Your task to perform on an android device: turn pop-ups on in chrome Image 0: 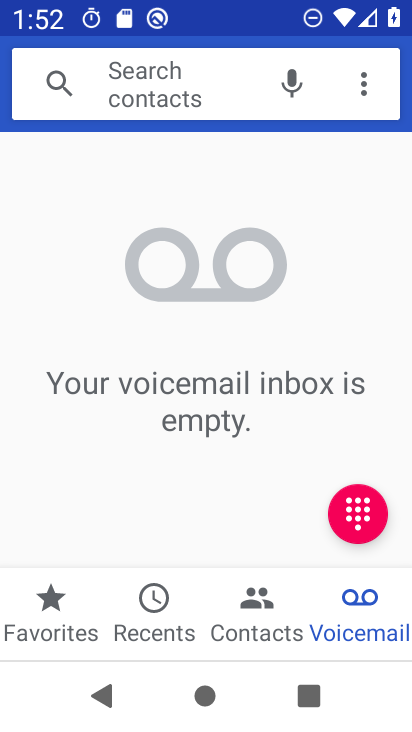
Step 0: press home button
Your task to perform on an android device: turn pop-ups on in chrome Image 1: 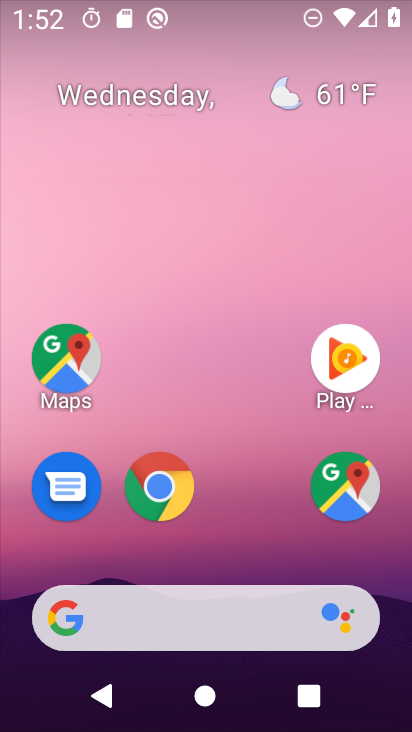
Step 1: drag from (246, 538) to (291, 121)
Your task to perform on an android device: turn pop-ups on in chrome Image 2: 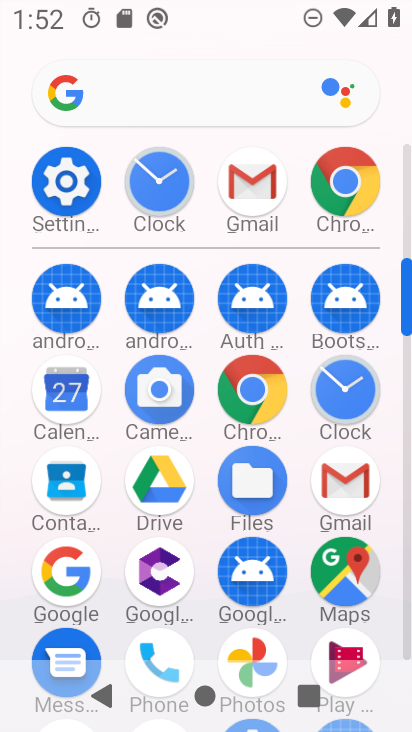
Step 2: click (258, 390)
Your task to perform on an android device: turn pop-ups on in chrome Image 3: 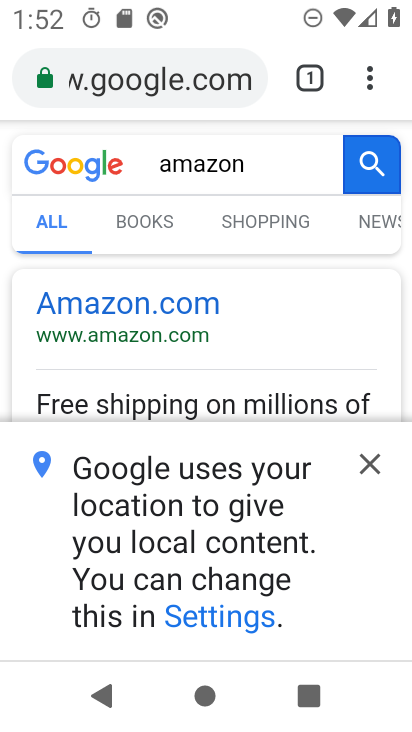
Step 3: click (368, 91)
Your task to perform on an android device: turn pop-ups on in chrome Image 4: 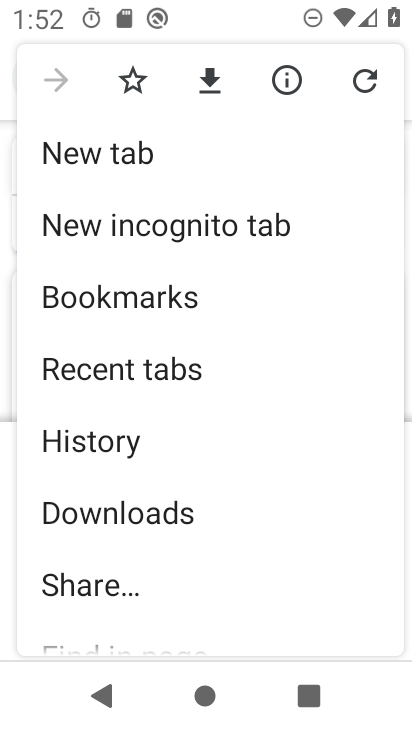
Step 4: drag from (326, 446) to (316, 363)
Your task to perform on an android device: turn pop-ups on in chrome Image 5: 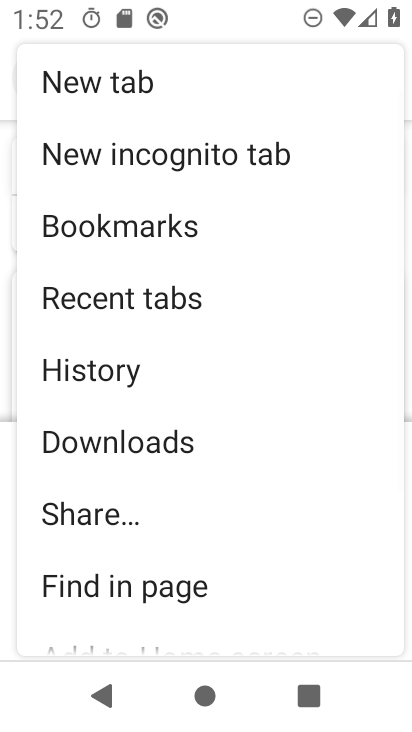
Step 5: drag from (290, 497) to (290, 408)
Your task to perform on an android device: turn pop-ups on in chrome Image 6: 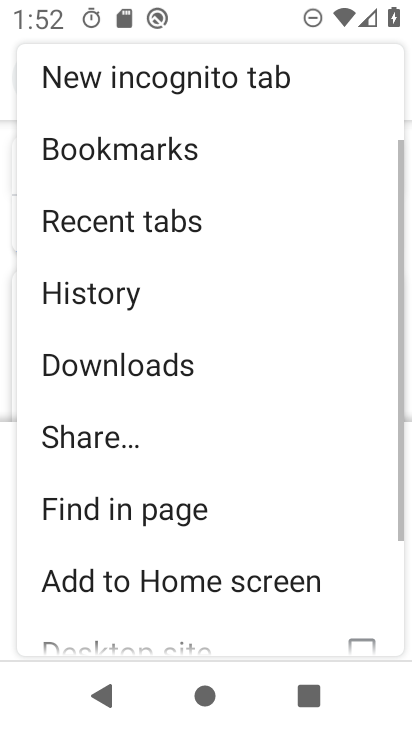
Step 6: drag from (297, 506) to (297, 402)
Your task to perform on an android device: turn pop-ups on in chrome Image 7: 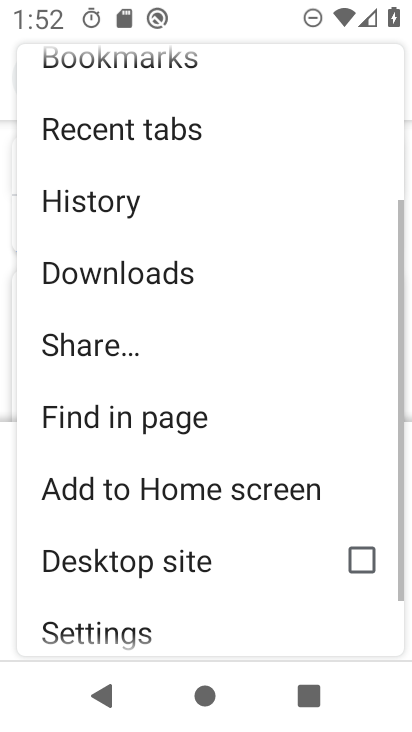
Step 7: drag from (284, 546) to (284, 452)
Your task to perform on an android device: turn pop-ups on in chrome Image 8: 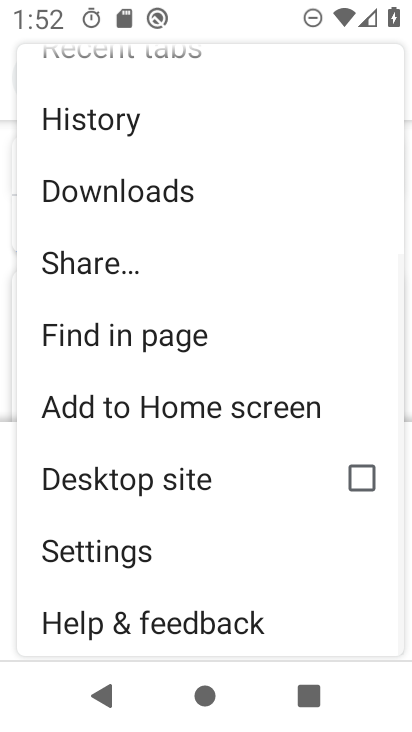
Step 8: drag from (280, 566) to (280, 419)
Your task to perform on an android device: turn pop-ups on in chrome Image 9: 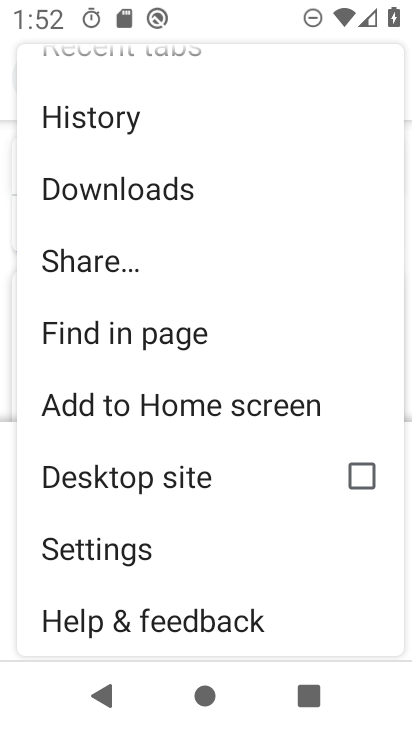
Step 9: click (232, 548)
Your task to perform on an android device: turn pop-ups on in chrome Image 10: 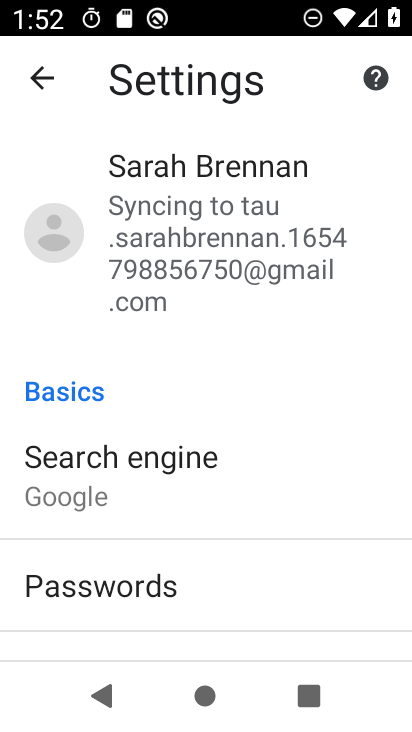
Step 10: drag from (329, 556) to (329, 458)
Your task to perform on an android device: turn pop-ups on in chrome Image 11: 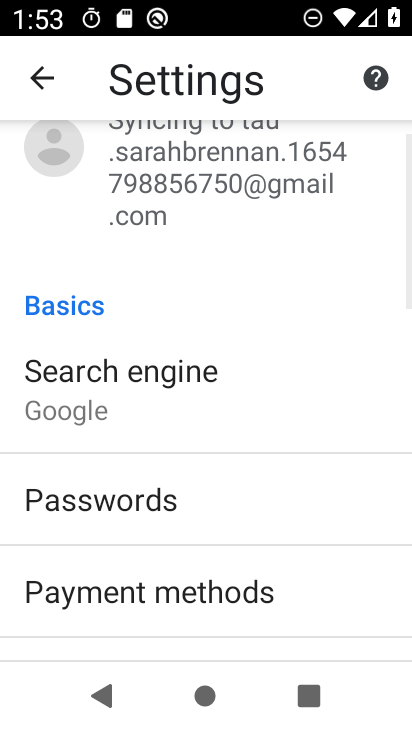
Step 11: drag from (318, 570) to (325, 477)
Your task to perform on an android device: turn pop-ups on in chrome Image 12: 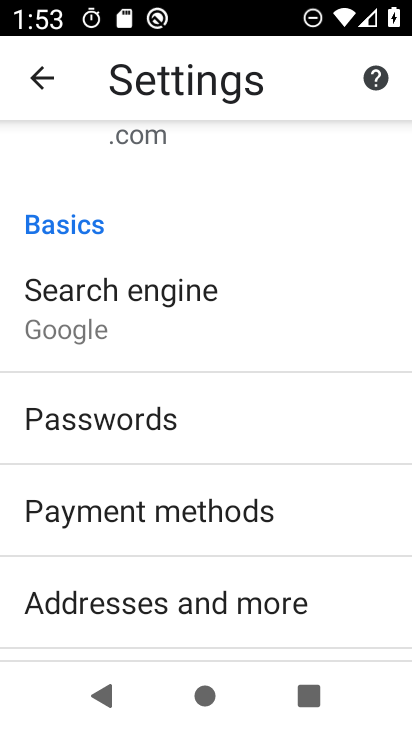
Step 12: drag from (321, 537) to (320, 448)
Your task to perform on an android device: turn pop-ups on in chrome Image 13: 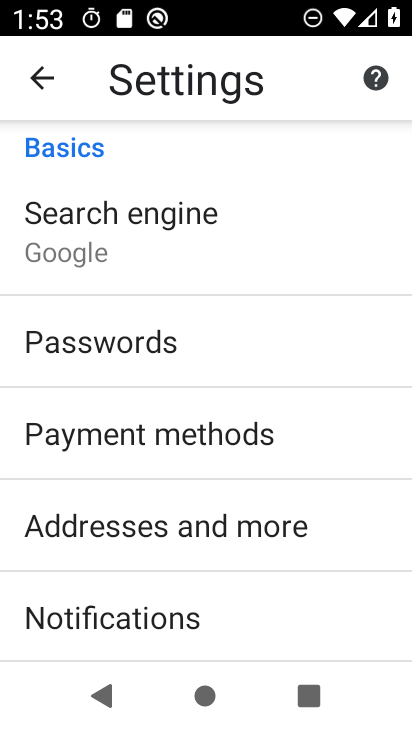
Step 13: drag from (321, 568) to (327, 471)
Your task to perform on an android device: turn pop-ups on in chrome Image 14: 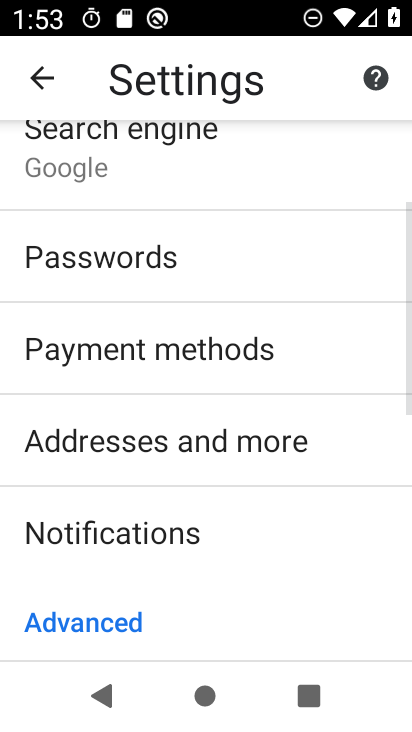
Step 14: drag from (310, 545) to (310, 474)
Your task to perform on an android device: turn pop-ups on in chrome Image 15: 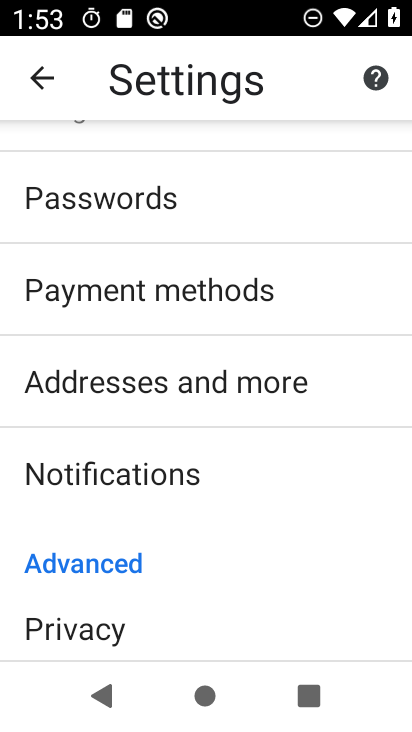
Step 15: drag from (296, 567) to (300, 449)
Your task to perform on an android device: turn pop-ups on in chrome Image 16: 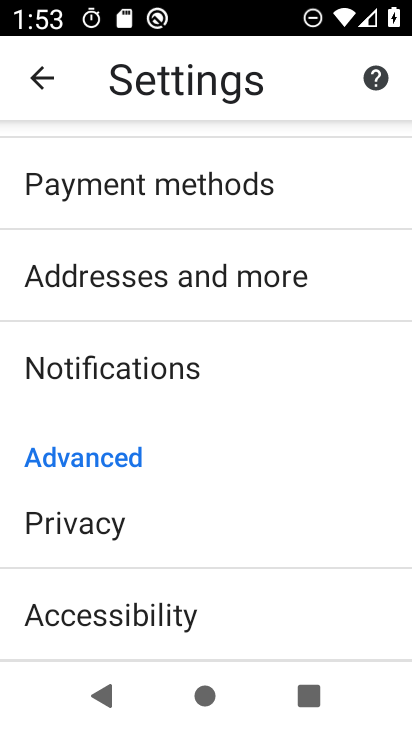
Step 16: drag from (301, 550) to (304, 448)
Your task to perform on an android device: turn pop-ups on in chrome Image 17: 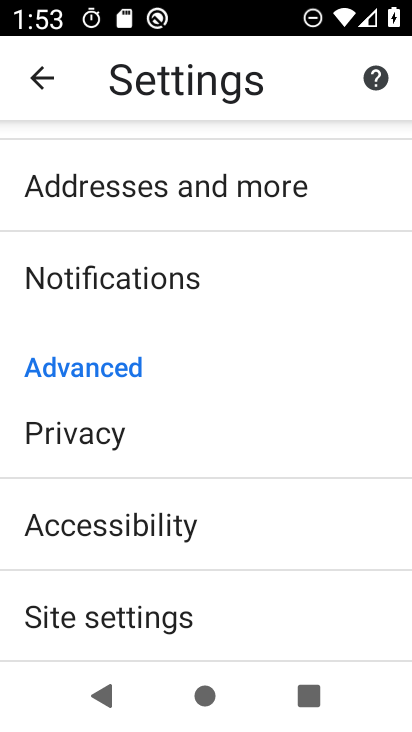
Step 17: click (306, 603)
Your task to perform on an android device: turn pop-ups on in chrome Image 18: 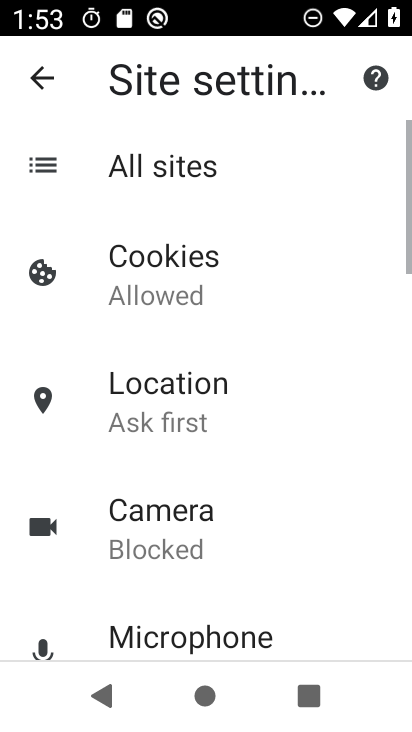
Step 18: drag from (315, 557) to (316, 412)
Your task to perform on an android device: turn pop-ups on in chrome Image 19: 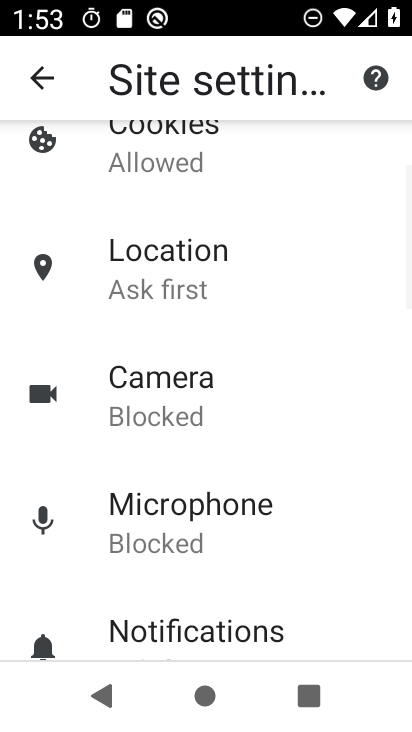
Step 19: drag from (293, 537) to (301, 426)
Your task to perform on an android device: turn pop-ups on in chrome Image 20: 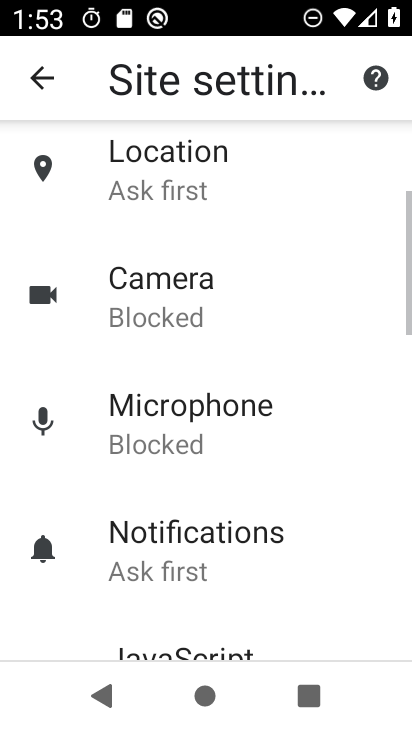
Step 20: drag from (321, 554) to (321, 473)
Your task to perform on an android device: turn pop-ups on in chrome Image 21: 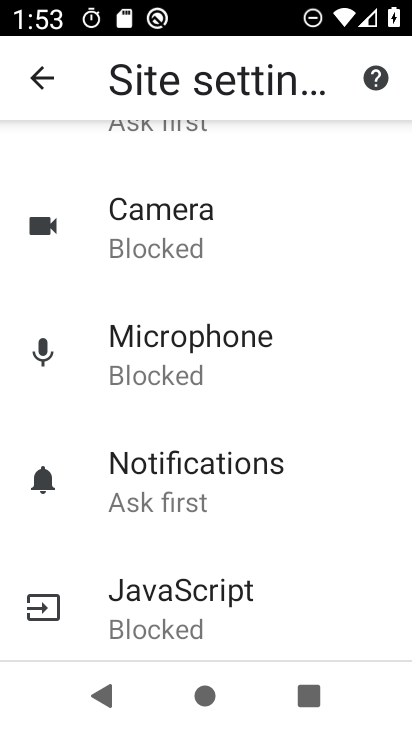
Step 21: drag from (319, 583) to (325, 483)
Your task to perform on an android device: turn pop-ups on in chrome Image 22: 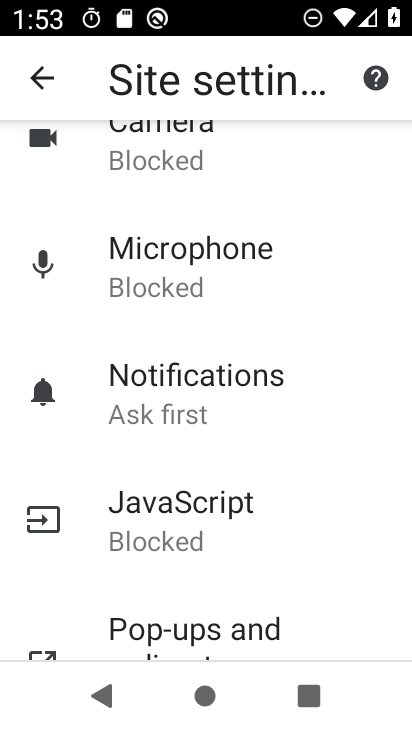
Step 22: drag from (326, 601) to (333, 483)
Your task to perform on an android device: turn pop-ups on in chrome Image 23: 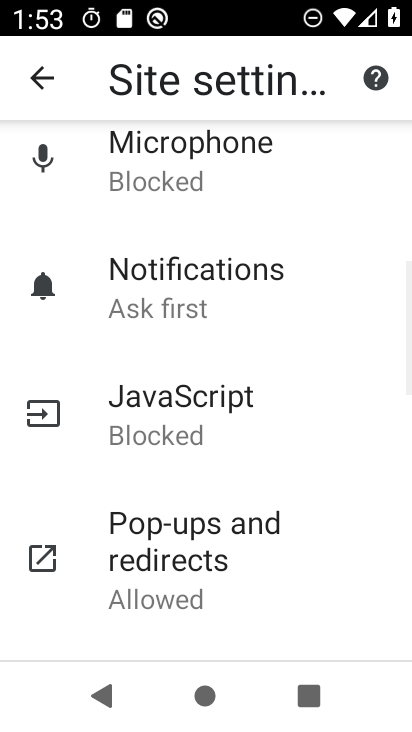
Step 23: drag from (333, 595) to (332, 451)
Your task to perform on an android device: turn pop-ups on in chrome Image 24: 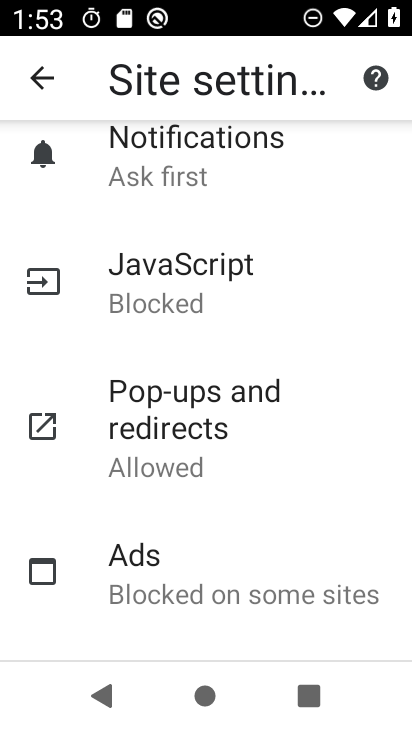
Step 24: click (301, 422)
Your task to perform on an android device: turn pop-ups on in chrome Image 25: 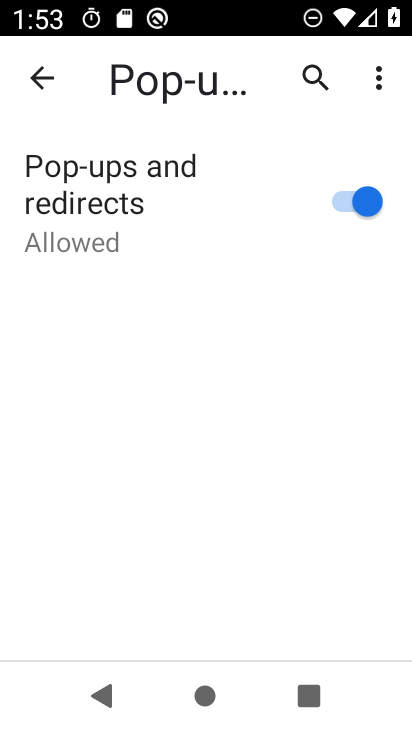
Step 25: task complete